Your task to perform on an android device: open app "Life360: Find Family & Friends" (install if not already installed), go to login, and select forgot password Image 0: 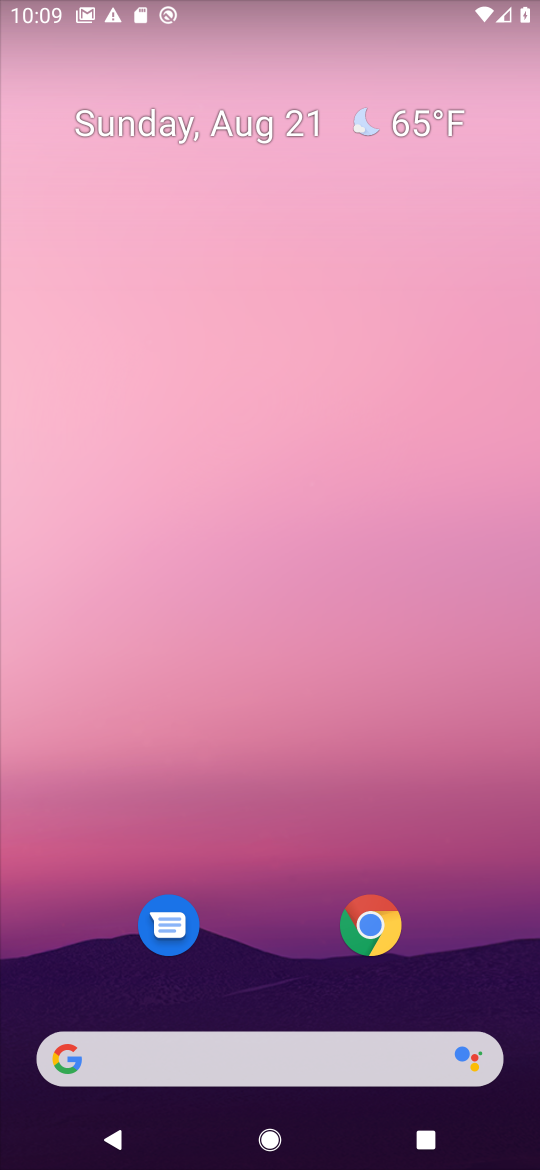
Step 0: drag from (258, 993) to (398, 191)
Your task to perform on an android device: open app "Life360: Find Family & Friends" (install if not already installed), go to login, and select forgot password Image 1: 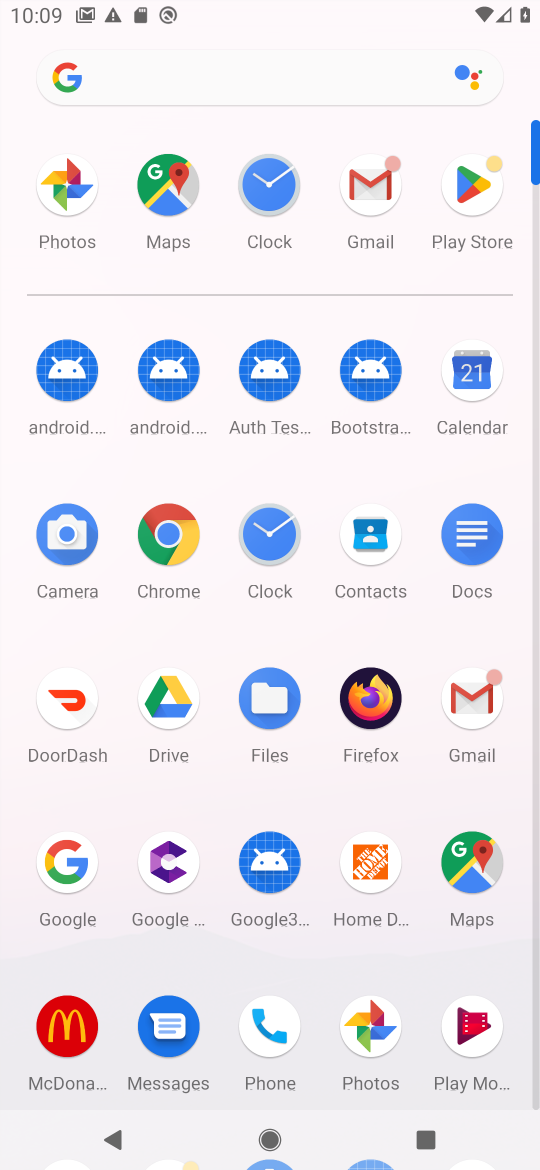
Step 1: click (479, 166)
Your task to perform on an android device: open app "Life360: Find Family & Friends" (install if not already installed), go to login, and select forgot password Image 2: 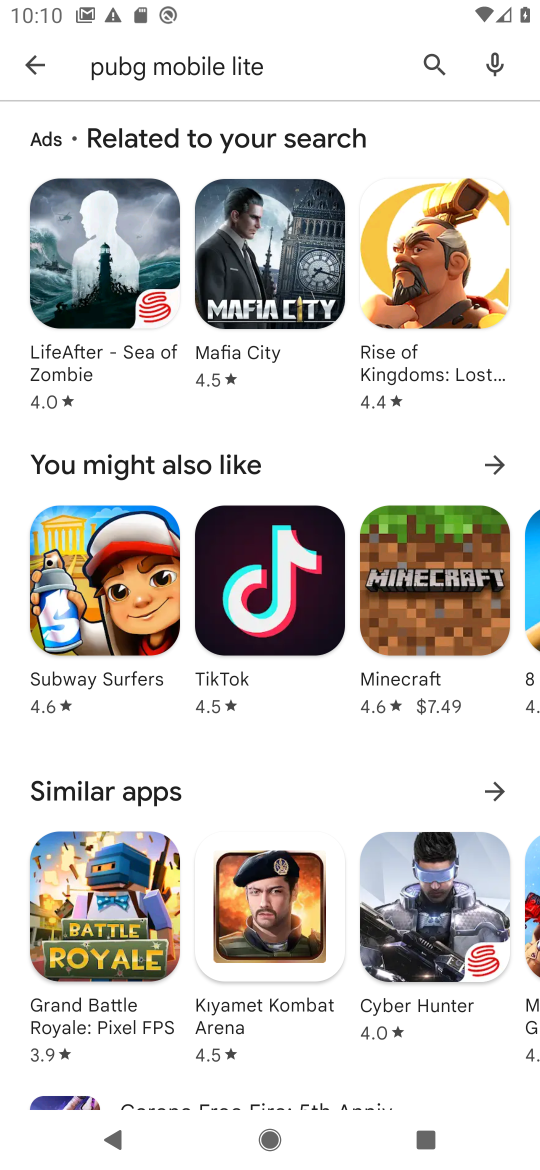
Step 2: click (454, 72)
Your task to perform on an android device: open app "Life360: Find Family & Friends" (install if not already installed), go to login, and select forgot password Image 3: 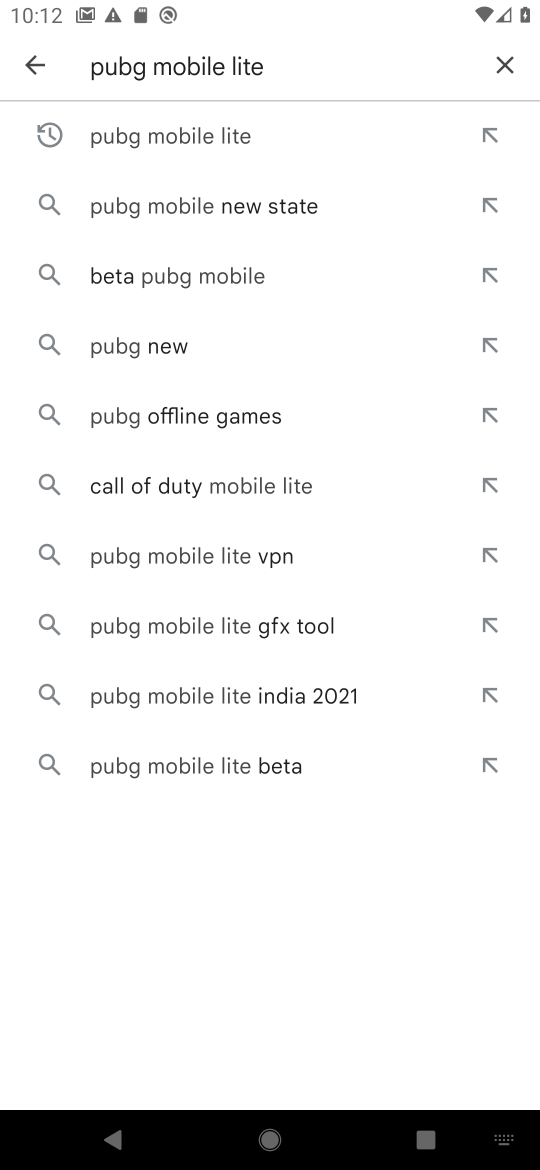
Step 3: click (508, 74)
Your task to perform on an android device: open app "Life360: Find Family & Friends" (install if not already installed), go to login, and select forgot password Image 4: 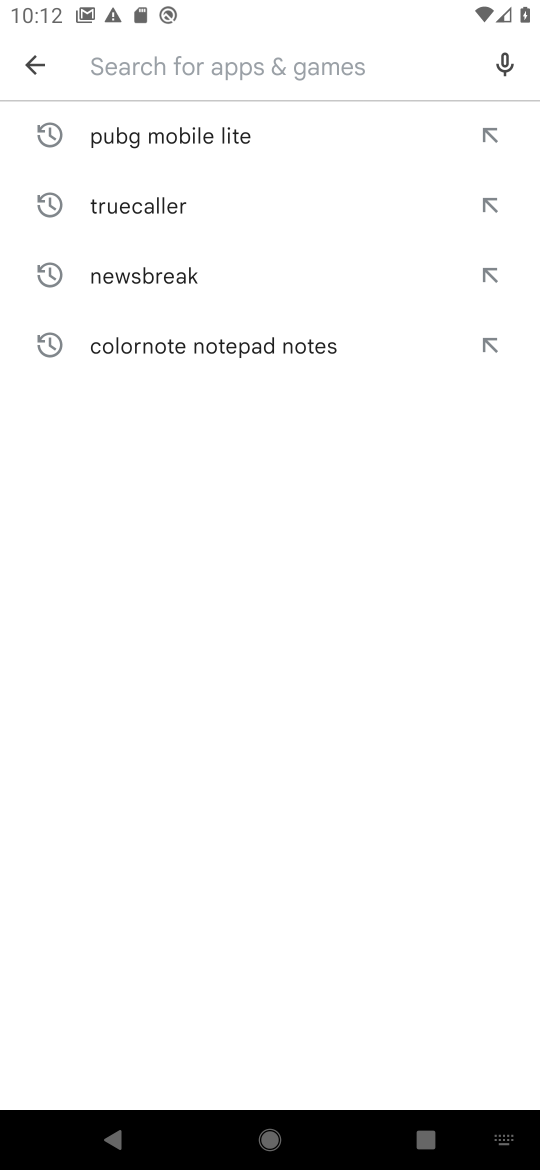
Step 4: click (160, 66)
Your task to perform on an android device: open app "Life360: Find Family & Friends" (install if not already installed), go to login, and select forgot password Image 5: 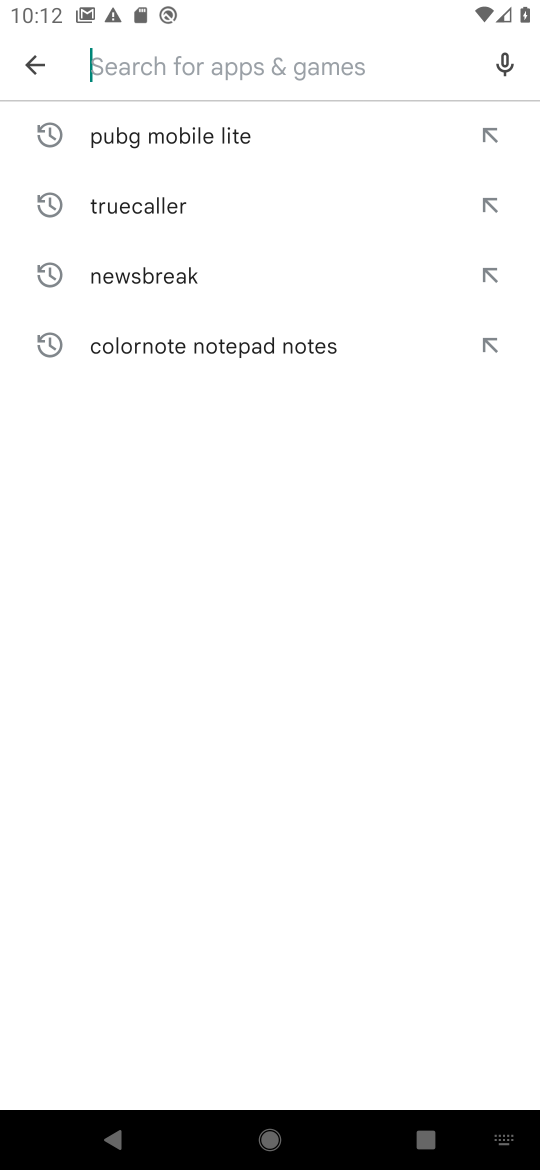
Step 5: type "life 360"
Your task to perform on an android device: open app "Life360: Find Family & Friends" (install if not already installed), go to login, and select forgot password Image 6: 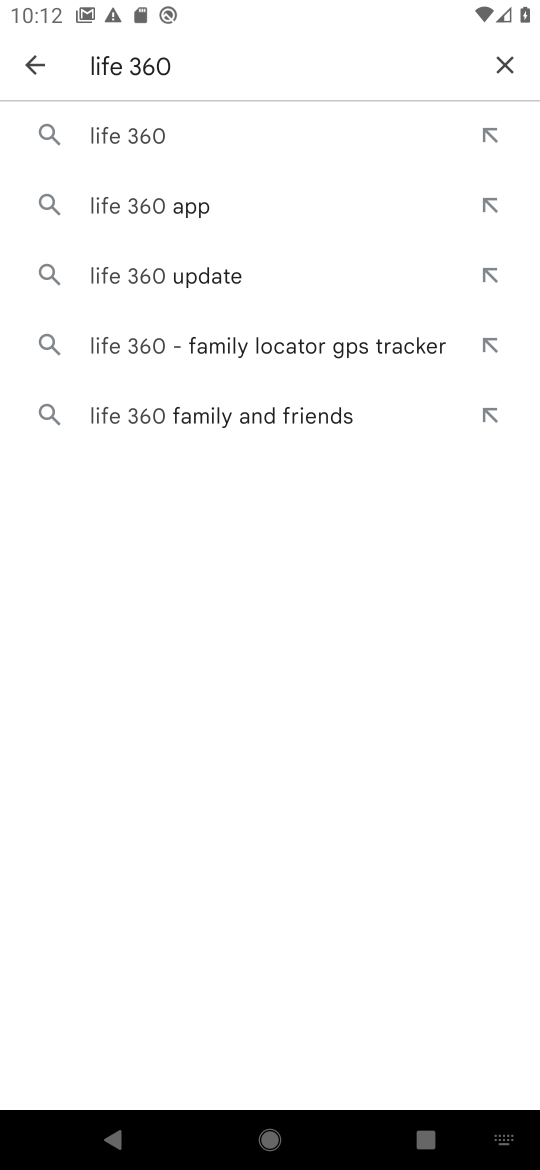
Step 6: click (127, 133)
Your task to perform on an android device: open app "Life360: Find Family & Friends" (install if not already installed), go to login, and select forgot password Image 7: 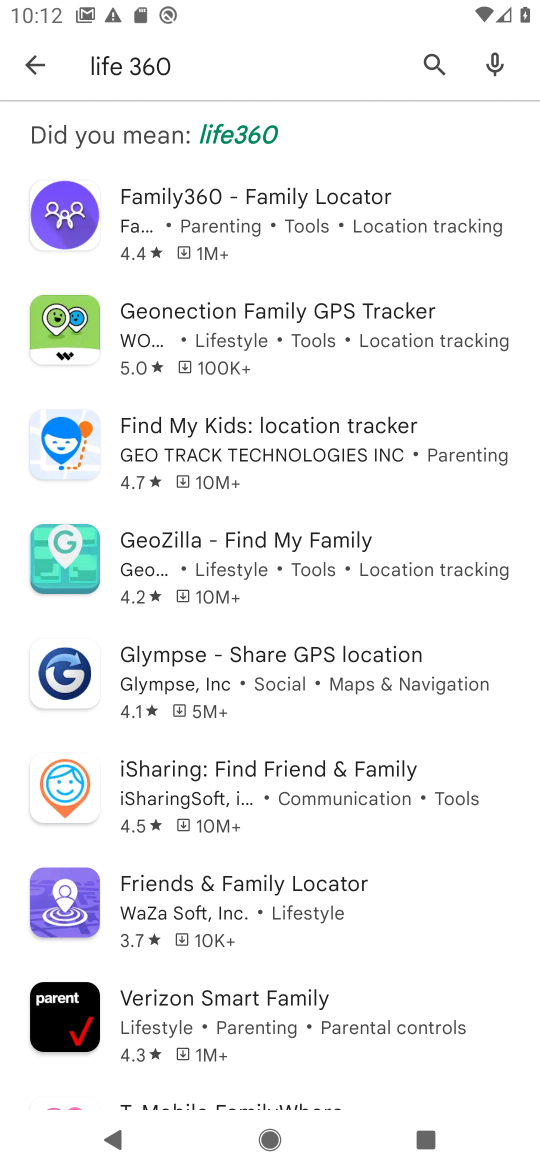
Step 7: task complete